Your task to perform on an android device: Go to Reddit.com Image 0: 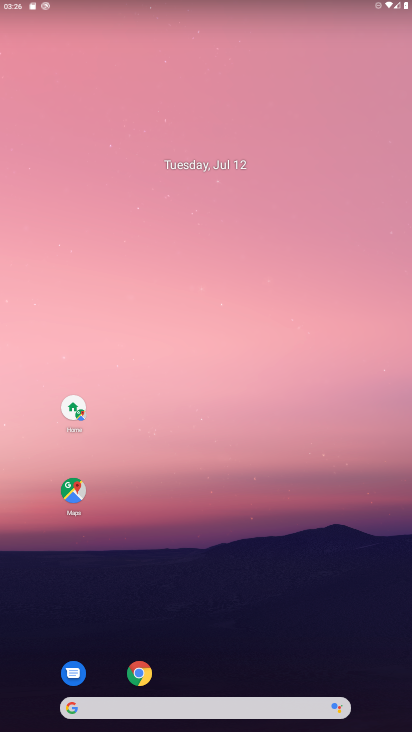
Step 0: drag from (204, 630) to (192, 358)
Your task to perform on an android device: Go to Reddit.com Image 1: 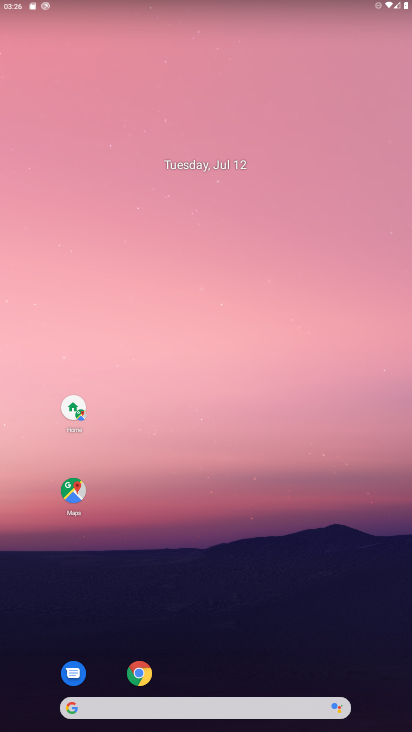
Step 1: drag from (190, 660) to (221, 179)
Your task to perform on an android device: Go to Reddit.com Image 2: 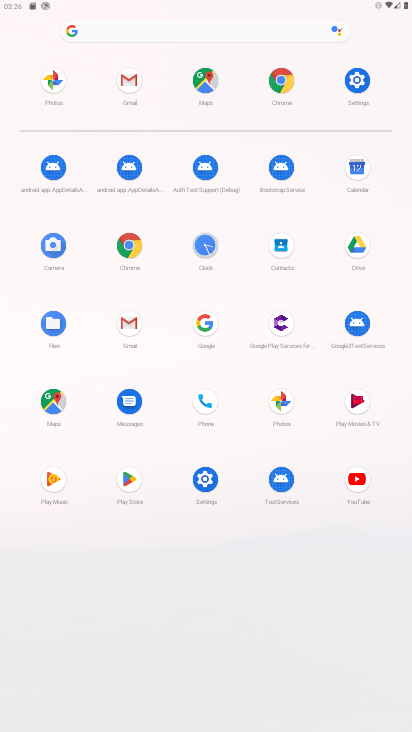
Step 2: click (289, 81)
Your task to perform on an android device: Go to Reddit.com Image 3: 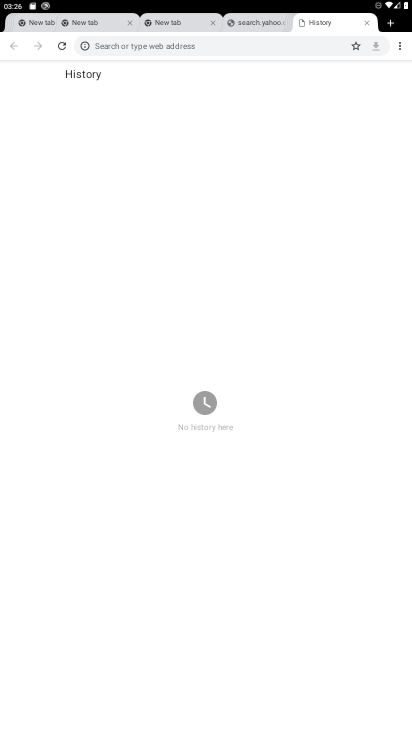
Step 3: click (286, 23)
Your task to perform on an android device: Go to Reddit.com Image 4: 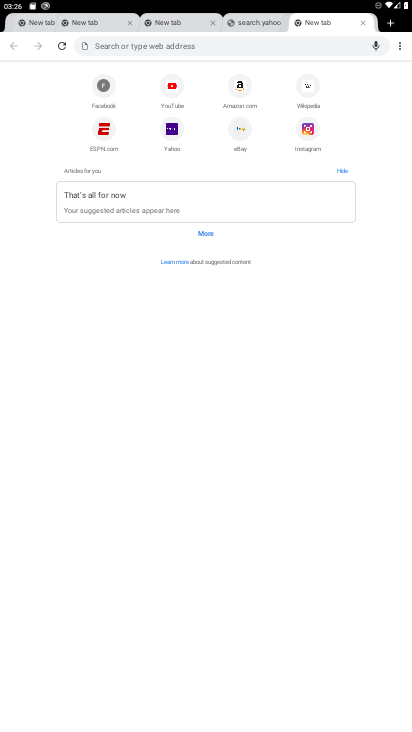
Step 4: click (368, 24)
Your task to perform on an android device: Go to Reddit.com Image 5: 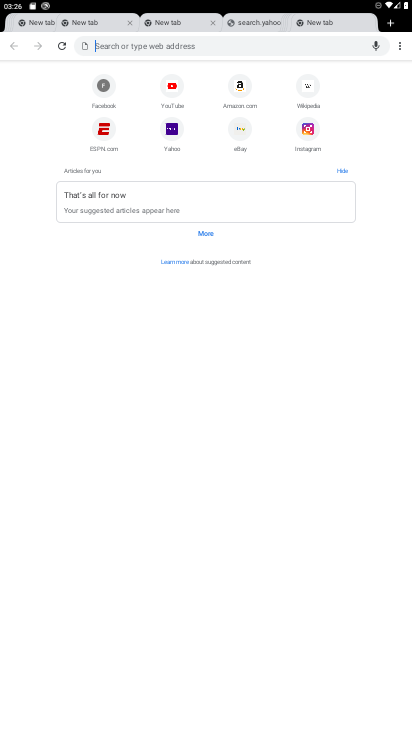
Step 5: click (365, 22)
Your task to perform on an android device: Go to Reddit.com Image 6: 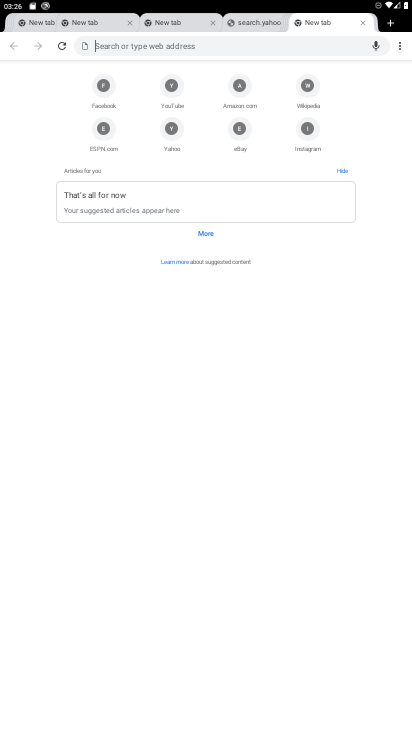
Step 6: click (365, 22)
Your task to perform on an android device: Go to Reddit.com Image 7: 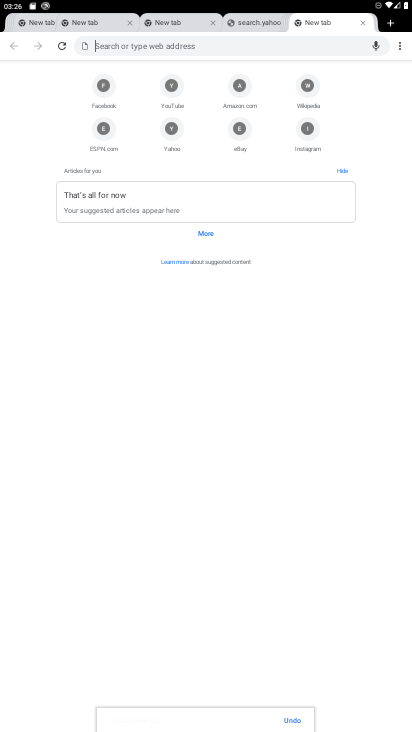
Step 7: click (365, 22)
Your task to perform on an android device: Go to Reddit.com Image 8: 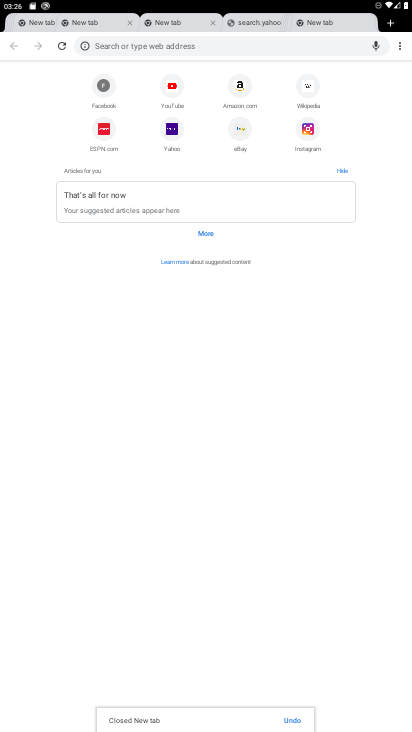
Step 8: click (365, 22)
Your task to perform on an android device: Go to Reddit.com Image 9: 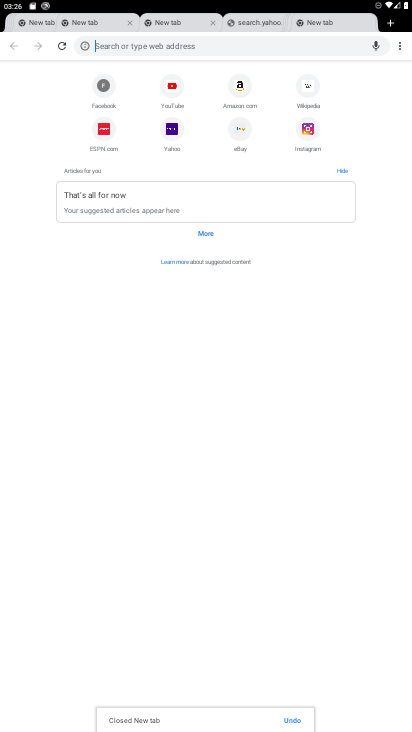
Step 9: click (365, 22)
Your task to perform on an android device: Go to Reddit.com Image 10: 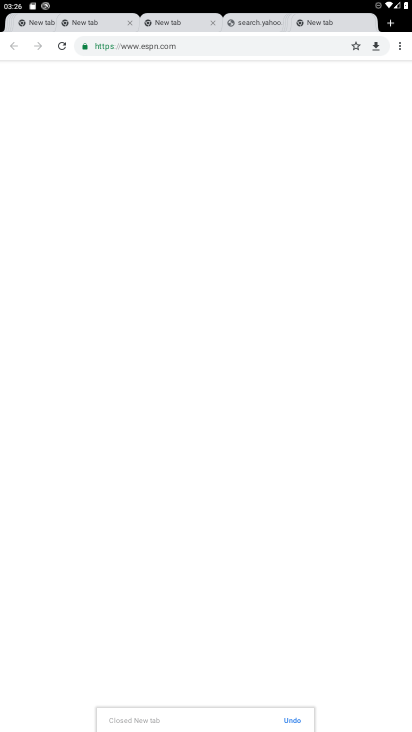
Step 10: click (365, 22)
Your task to perform on an android device: Go to Reddit.com Image 11: 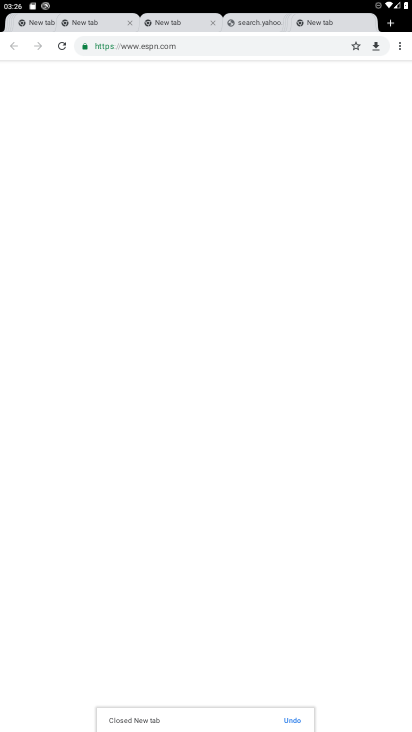
Step 11: click (365, 22)
Your task to perform on an android device: Go to Reddit.com Image 12: 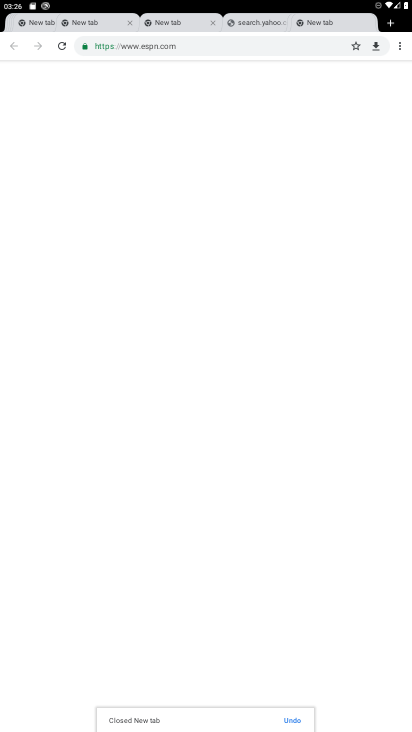
Step 12: click (368, 23)
Your task to perform on an android device: Go to Reddit.com Image 13: 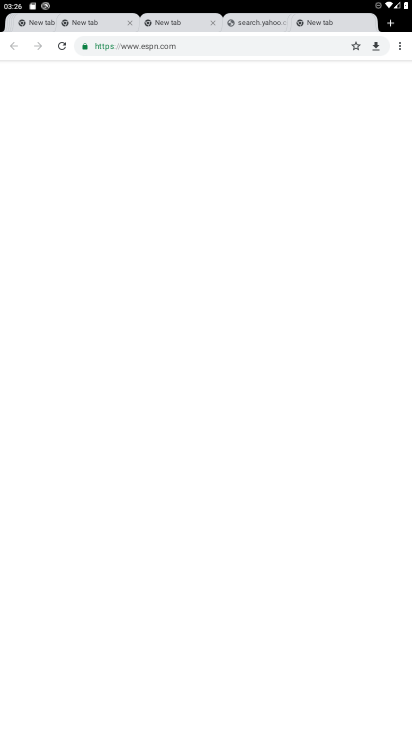
Step 13: click (334, 23)
Your task to perform on an android device: Go to Reddit.com Image 14: 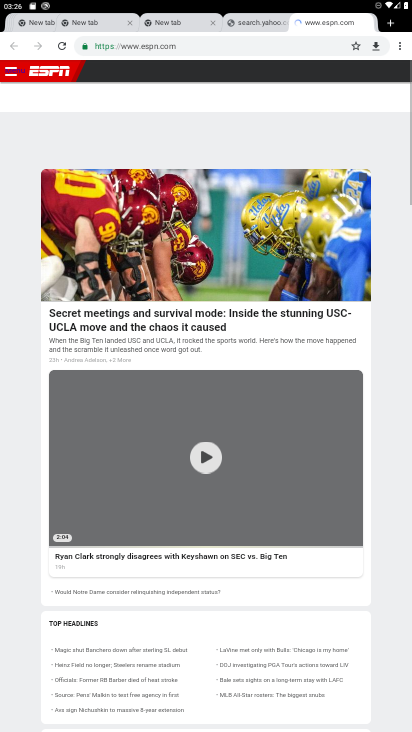
Step 14: click (334, 23)
Your task to perform on an android device: Go to Reddit.com Image 15: 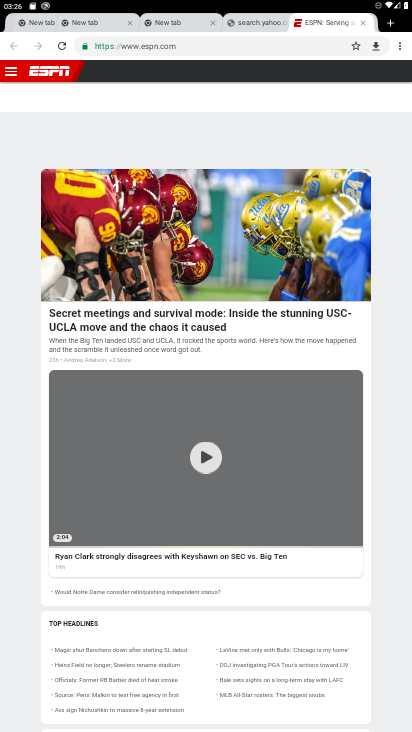
Step 15: click (365, 20)
Your task to perform on an android device: Go to Reddit.com Image 16: 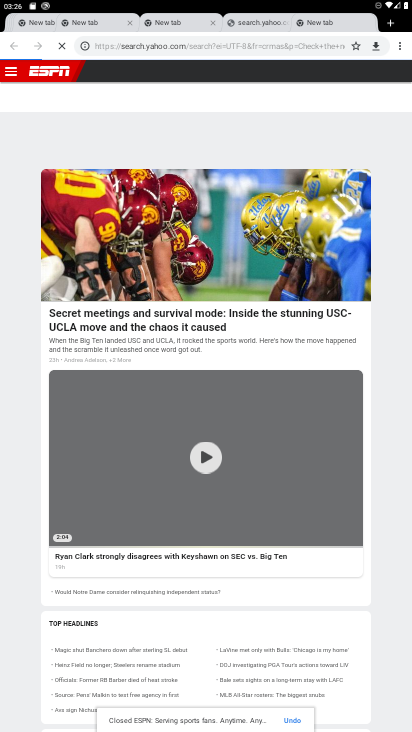
Step 16: click (392, 29)
Your task to perform on an android device: Go to Reddit.com Image 17: 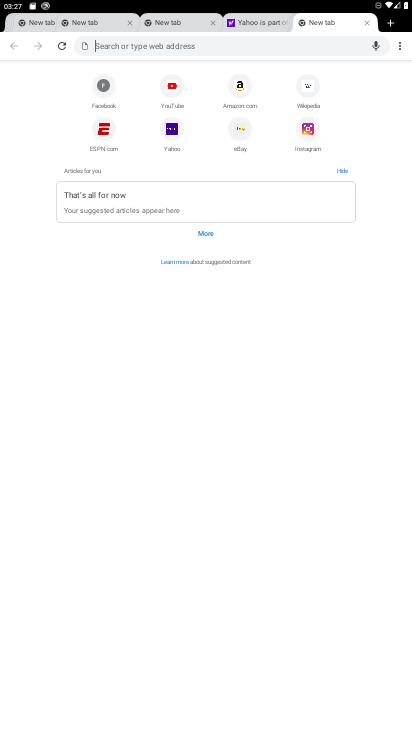
Step 17: click (251, 40)
Your task to perform on an android device: Go to Reddit.com Image 18: 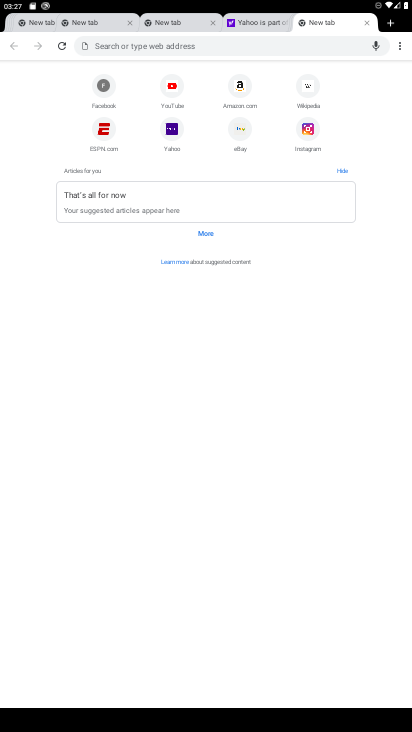
Step 18: type "Reddit.com "
Your task to perform on an android device: Go to Reddit.com Image 19: 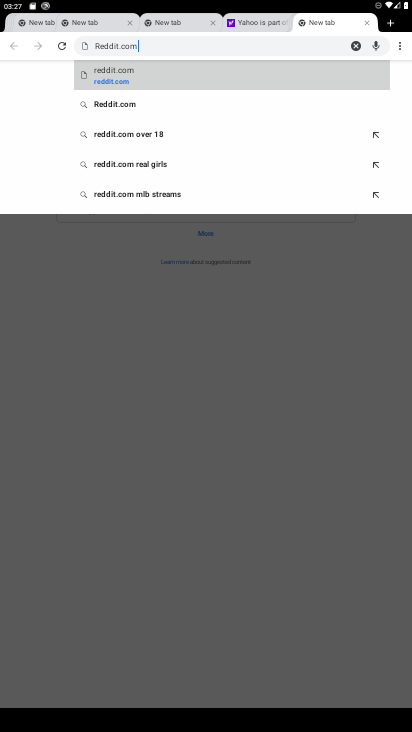
Step 19: click (139, 97)
Your task to perform on an android device: Go to Reddit.com Image 20: 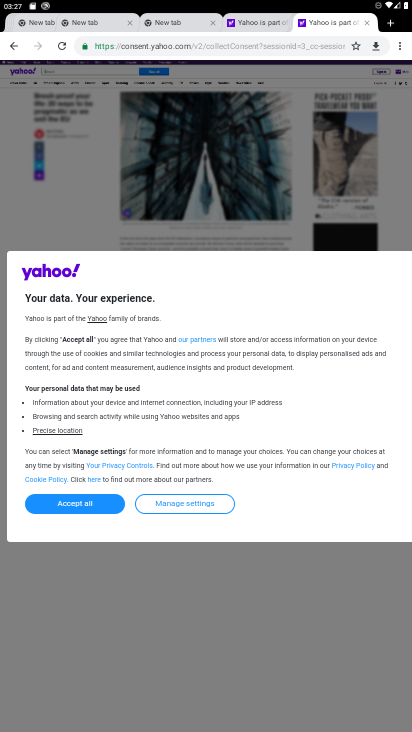
Step 20: task complete